Your task to perform on an android device: Open Google Maps Image 0: 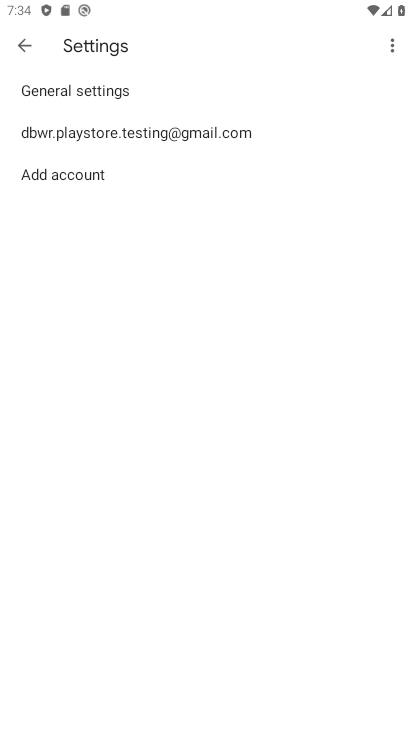
Step 0: press home button
Your task to perform on an android device: Open Google Maps Image 1: 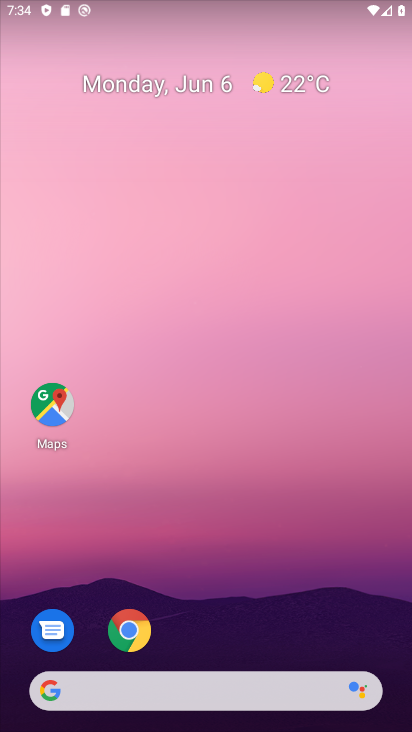
Step 1: click (59, 414)
Your task to perform on an android device: Open Google Maps Image 2: 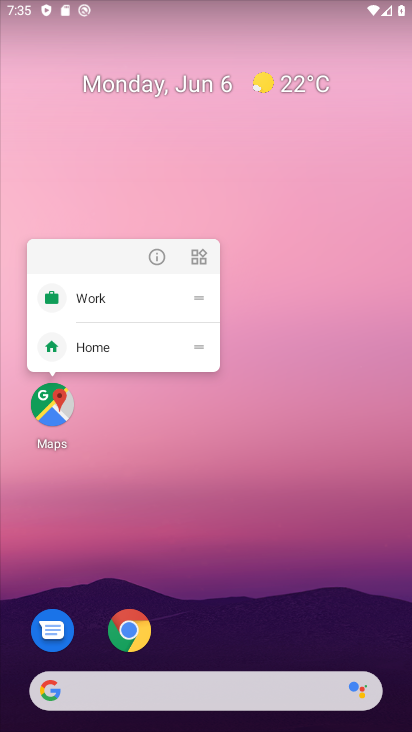
Step 2: click (59, 401)
Your task to perform on an android device: Open Google Maps Image 3: 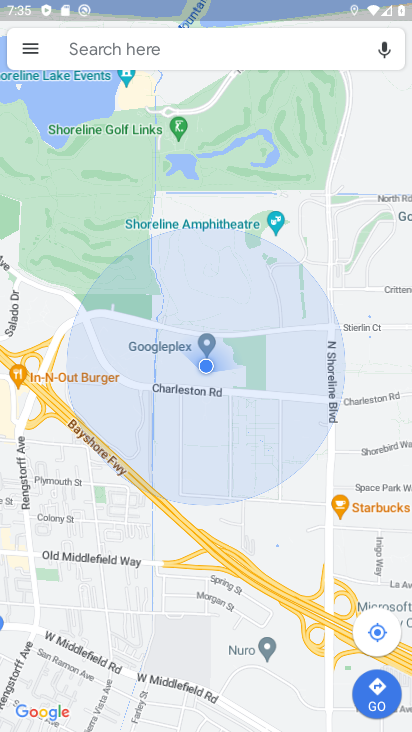
Step 3: task complete